Your task to perform on an android device: turn smart compose on in the gmail app Image 0: 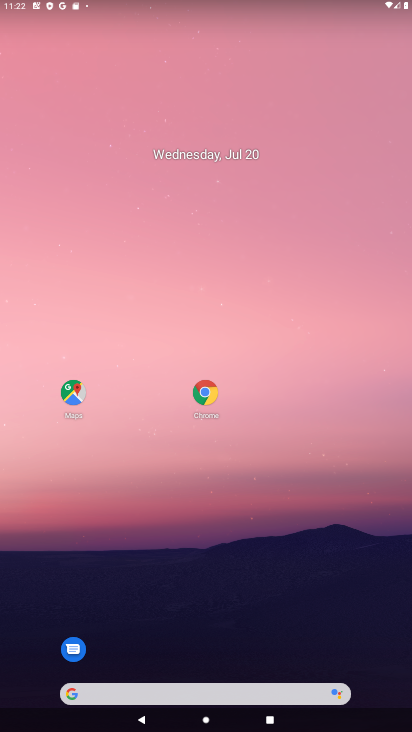
Step 0: drag from (221, 659) to (238, 160)
Your task to perform on an android device: turn smart compose on in the gmail app Image 1: 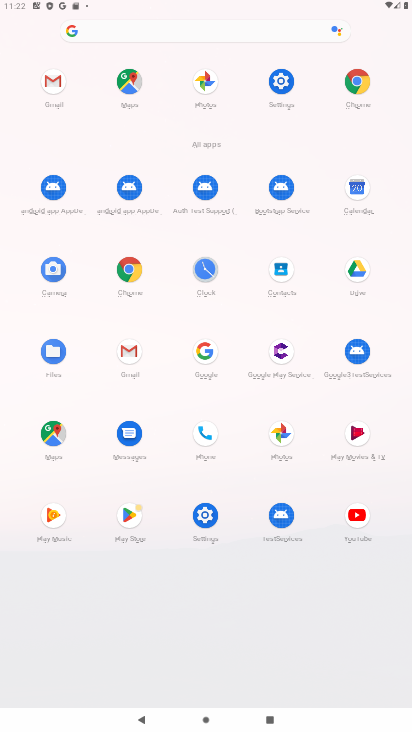
Step 1: click (44, 70)
Your task to perform on an android device: turn smart compose on in the gmail app Image 2: 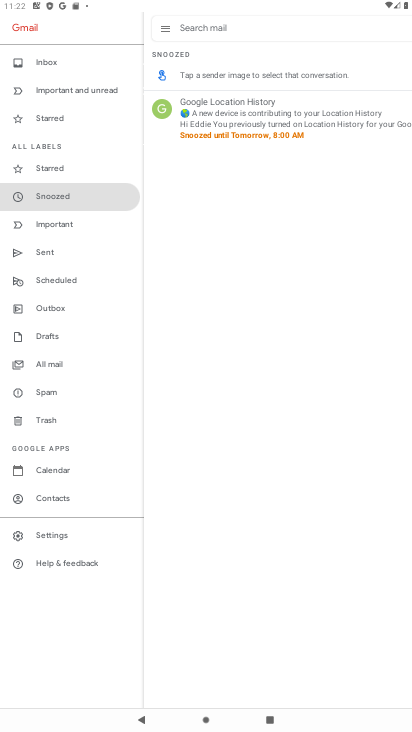
Step 2: click (69, 537)
Your task to perform on an android device: turn smart compose on in the gmail app Image 3: 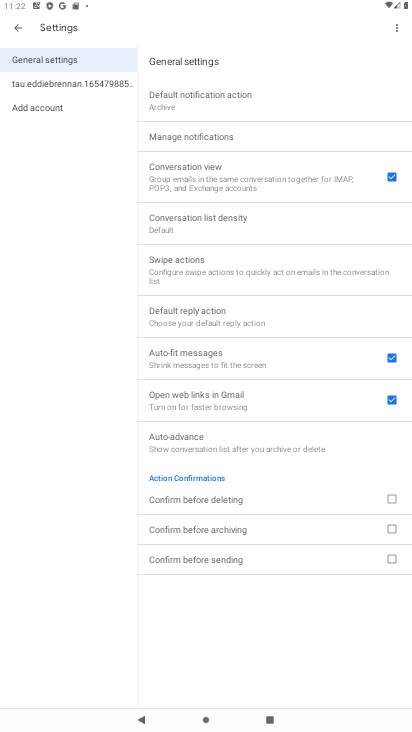
Step 3: click (48, 90)
Your task to perform on an android device: turn smart compose on in the gmail app Image 4: 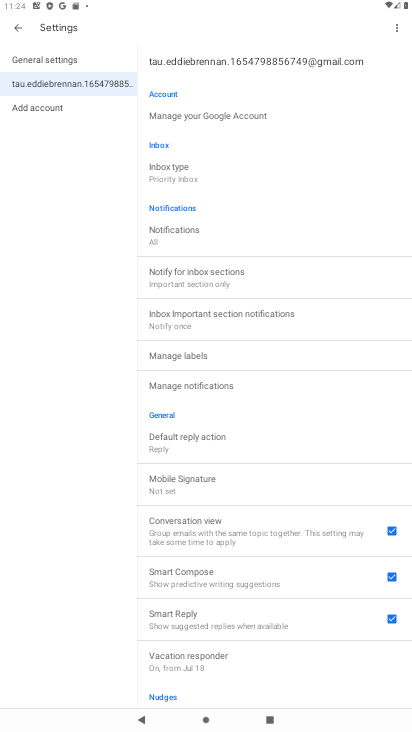
Step 4: task complete